Your task to perform on an android device: Go to settings Image 0: 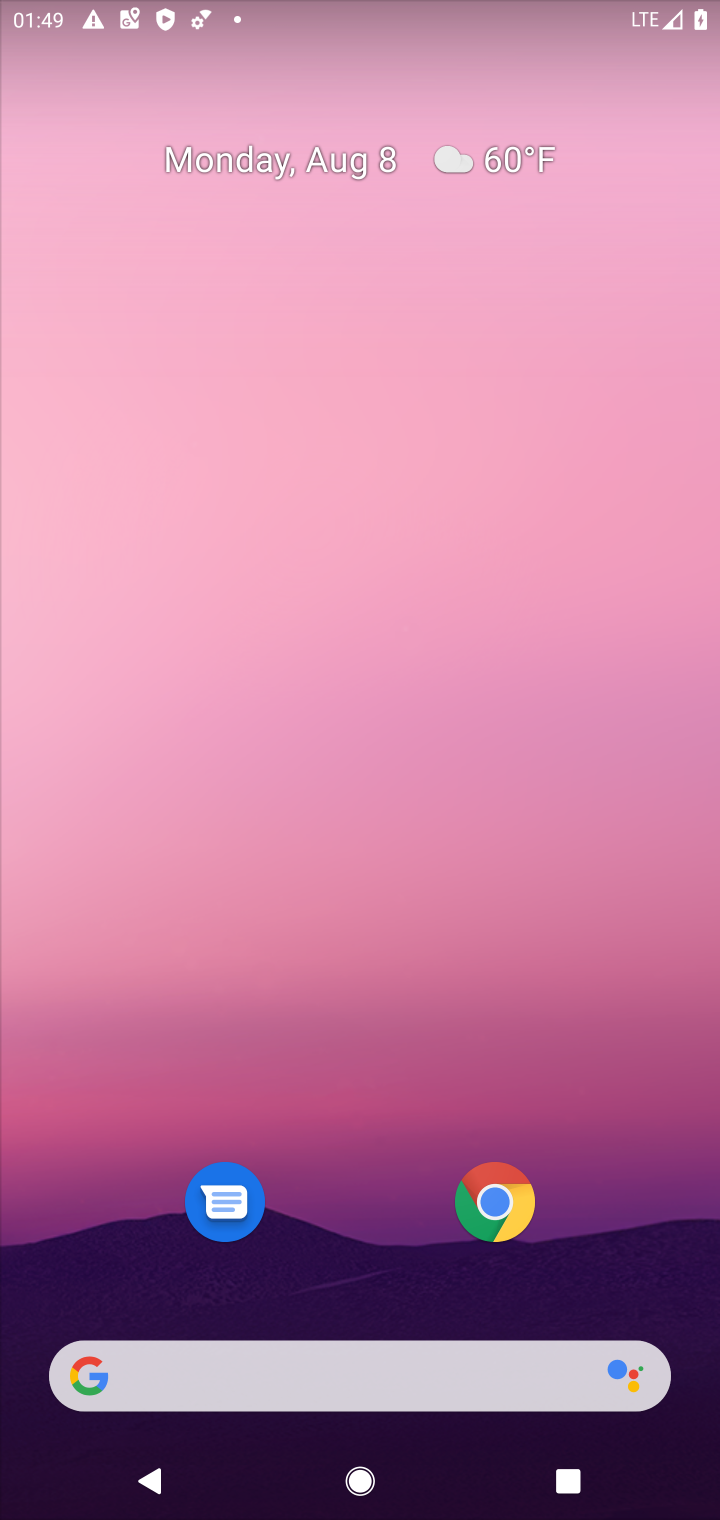
Step 0: press home button
Your task to perform on an android device: Go to settings Image 1: 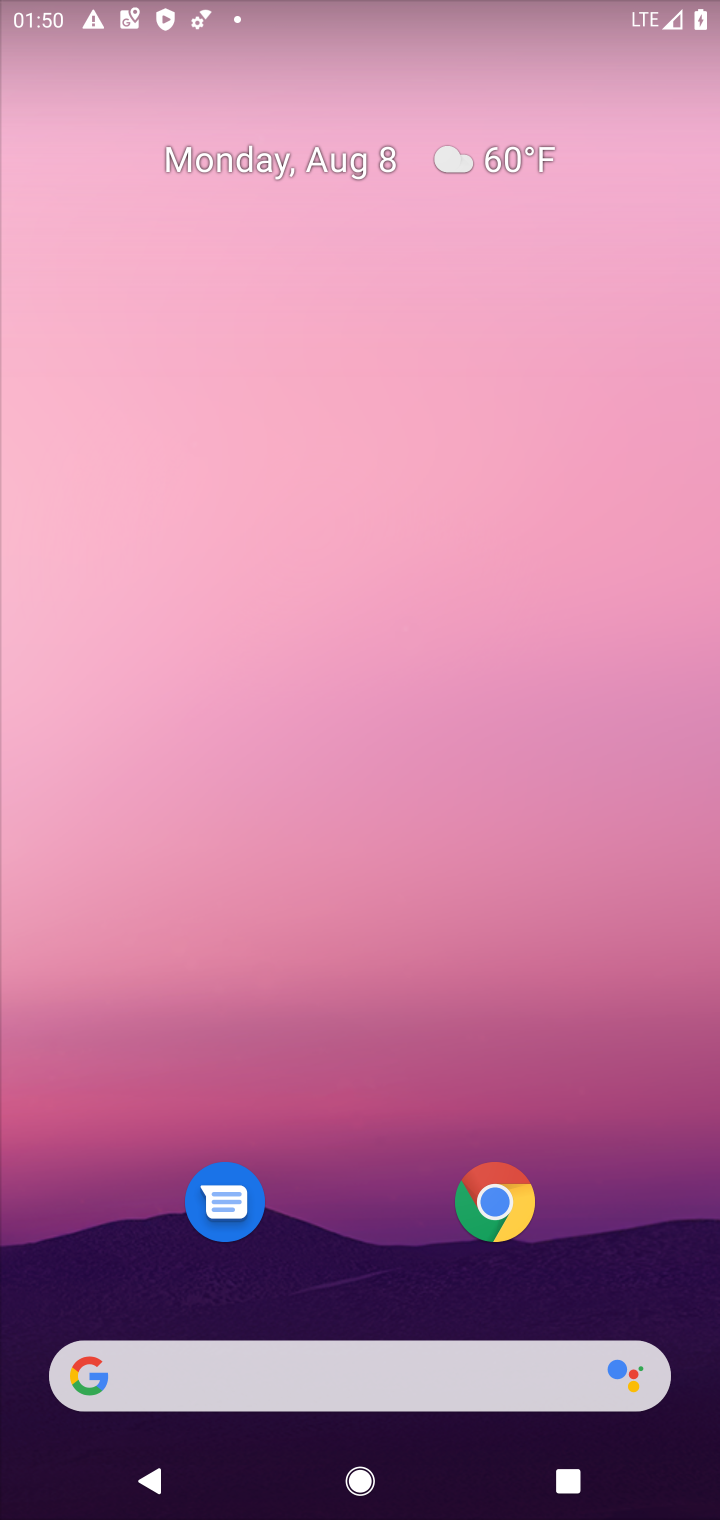
Step 1: drag from (329, 1233) to (440, 115)
Your task to perform on an android device: Go to settings Image 2: 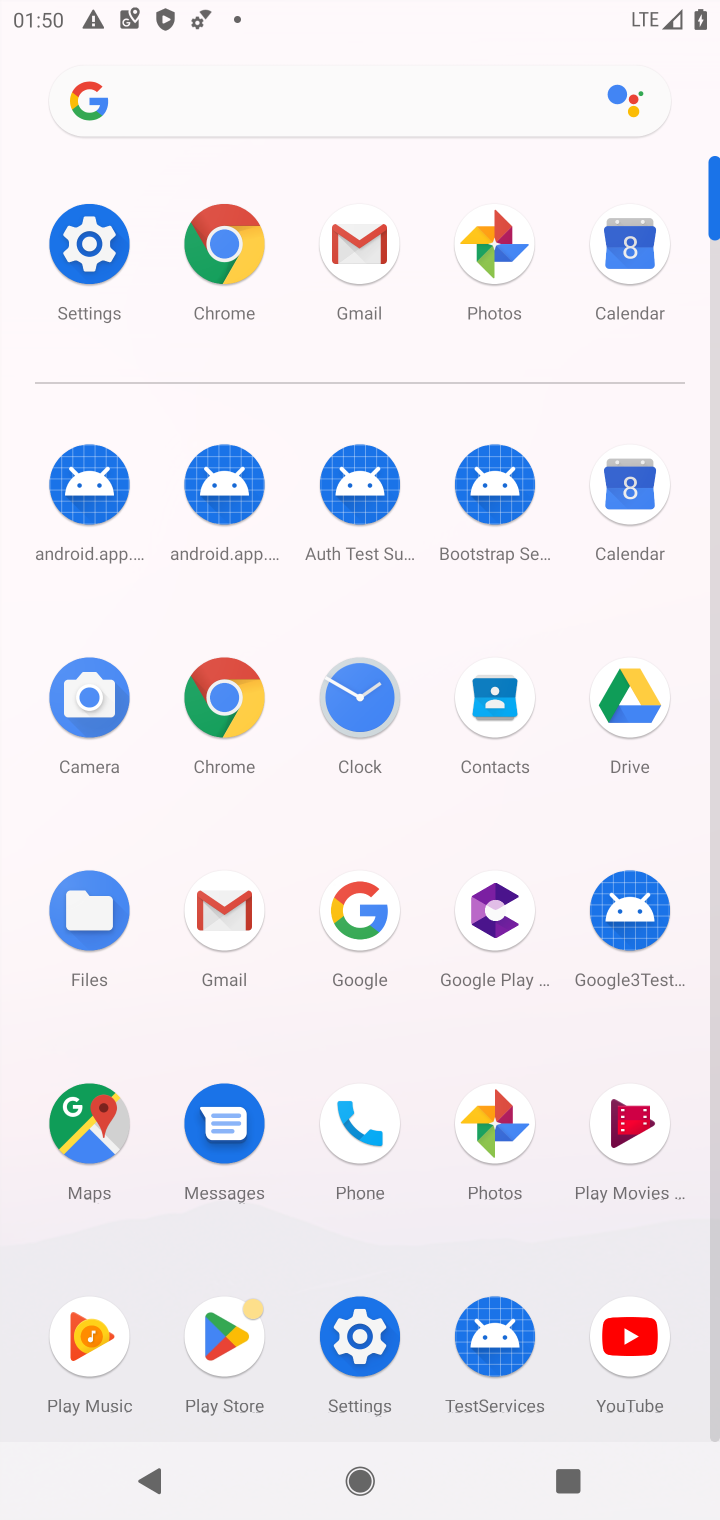
Step 2: click (83, 257)
Your task to perform on an android device: Go to settings Image 3: 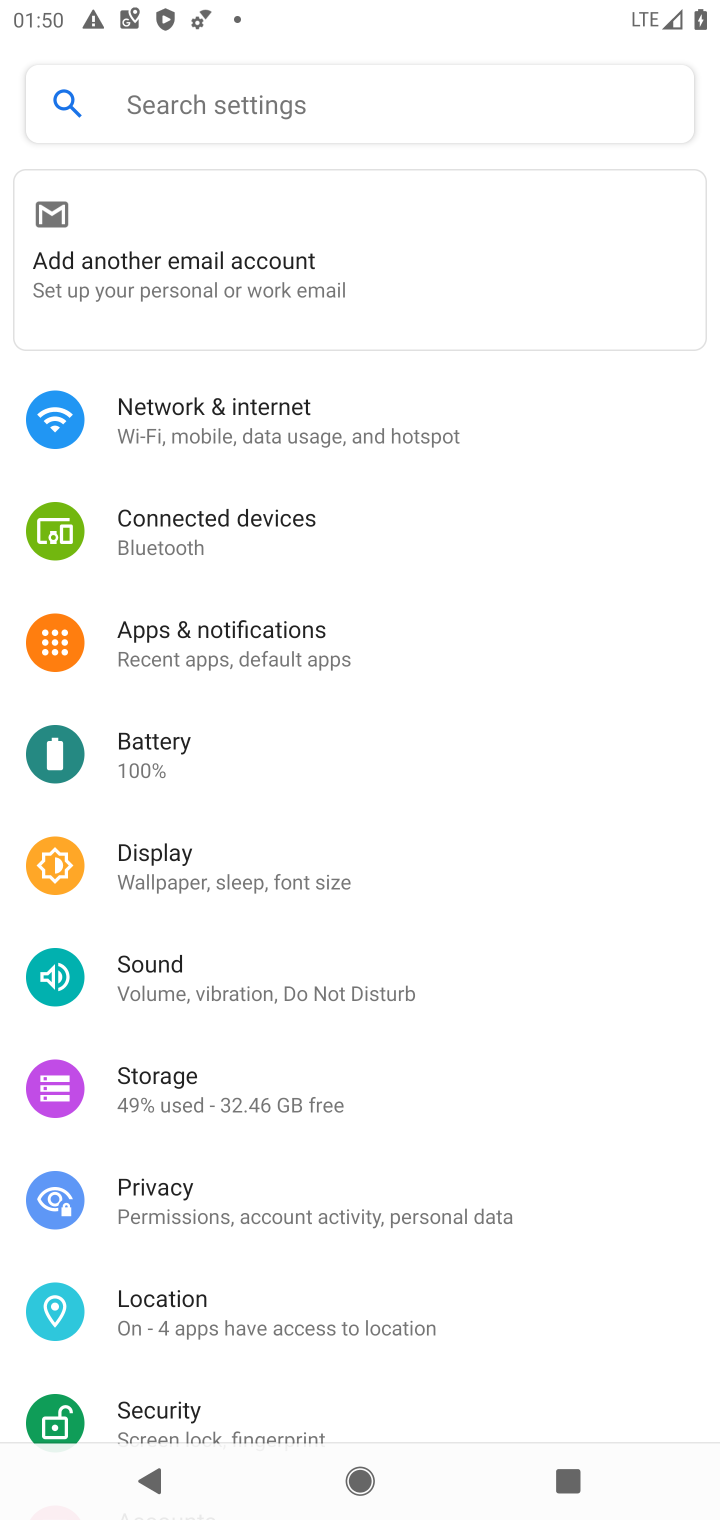
Step 3: task complete